Your task to perform on an android device: turn on bluetooth scan Image 0: 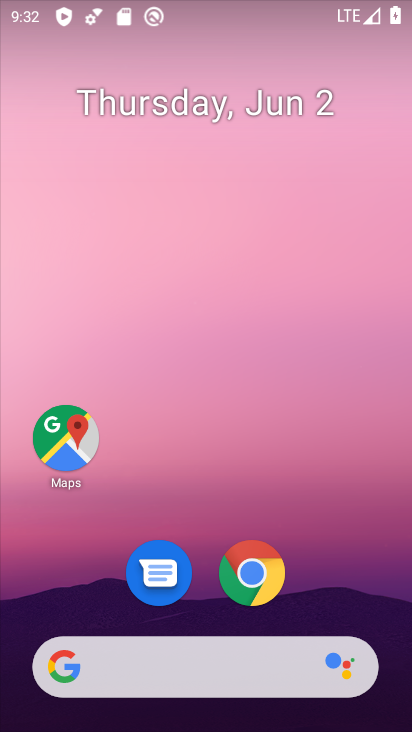
Step 0: drag from (345, 569) to (291, 194)
Your task to perform on an android device: turn on bluetooth scan Image 1: 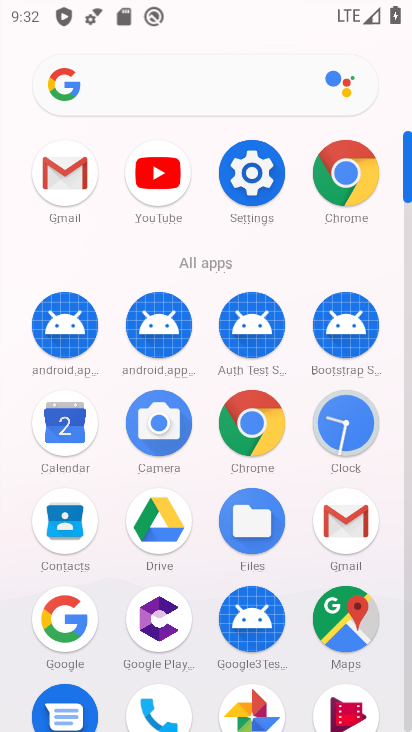
Step 1: click (259, 156)
Your task to perform on an android device: turn on bluetooth scan Image 2: 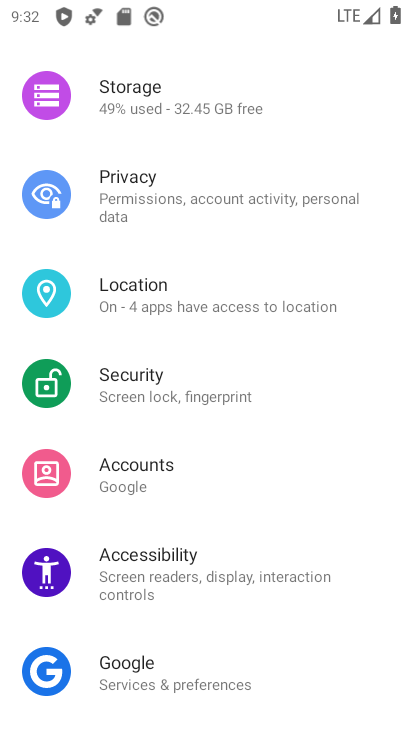
Step 2: drag from (211, 216) to (188, 539)
Your task to perform on an android device: turn on bluetooth scan Image 3: 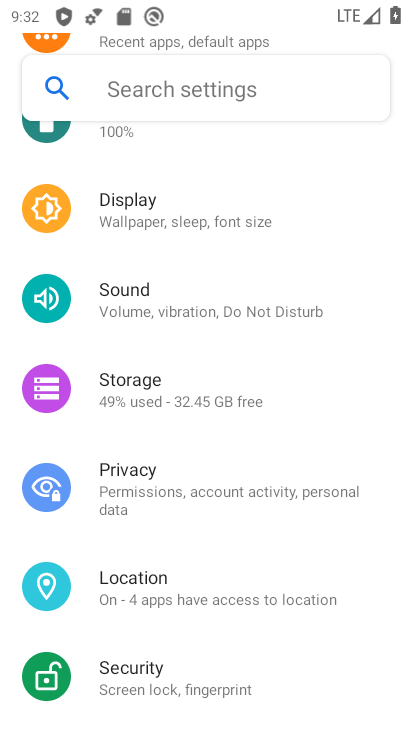
Step 3: drag from (231, 261) to (265, 189)
Your task to perform on an android device: turn on bluetooth scan Image 4: 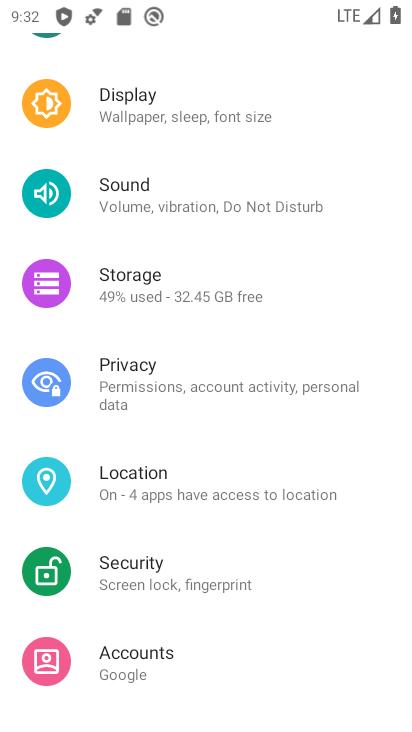
Step 4: click (163, 489)
Your task to perform on an android device: turn on bluetooth scan Image 5: 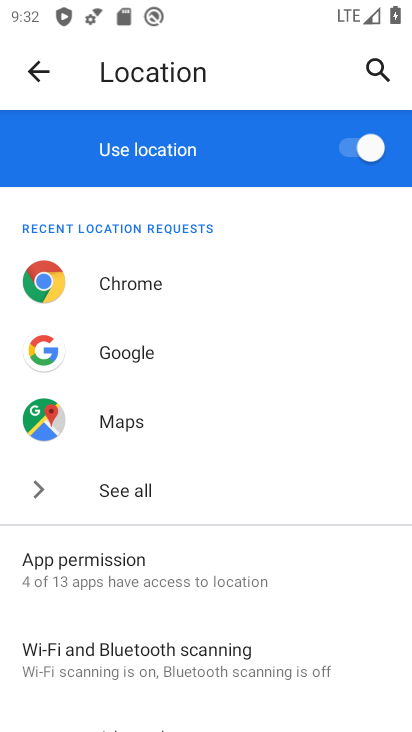
Step 5: drag from (141, 613) to (209, 288)
Your task to perform on an android device: turn on bluetooth scan Image 6: 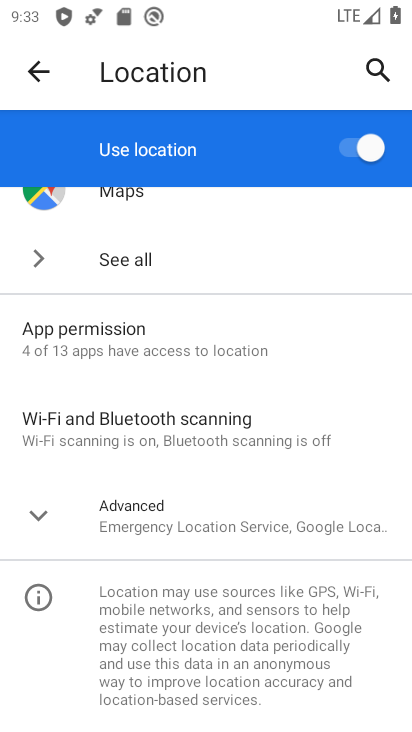
Step 6: click (157, 451)
Your task to perform on an android device: turn on bluetooth scan Image 7: 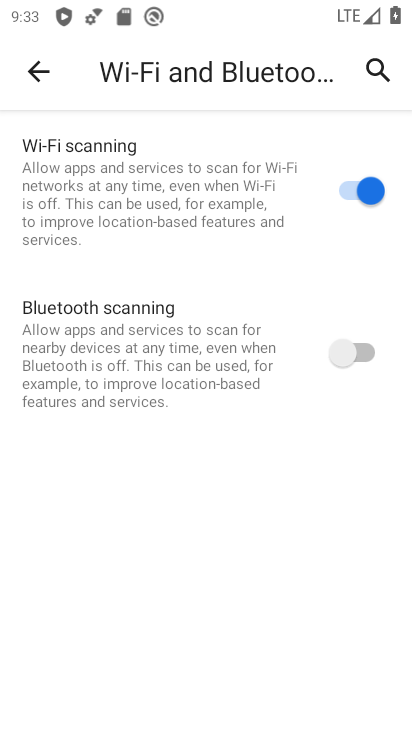
Step 7: click (341, 361)
Your task to perform on an android device: turn on bluetooth scan Image 8: 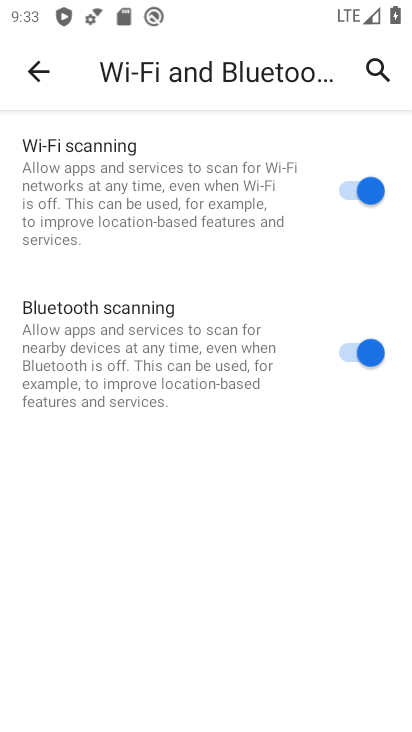
Step 8: task complete